Your task to perform on an android device: Do I have any events today? Image 0: 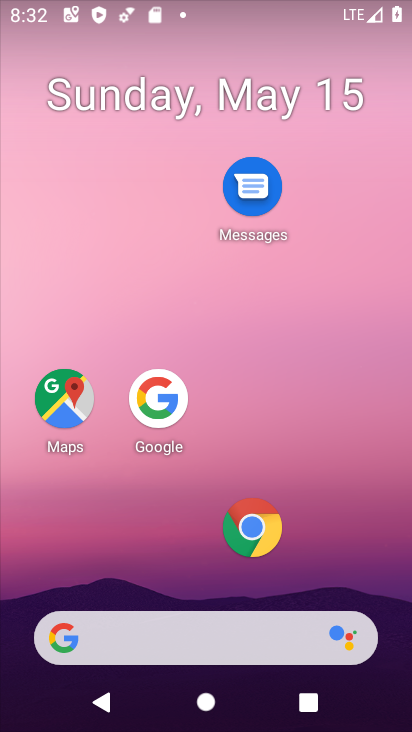
Step 0: drag from (170, 638) to (261, 289)
Your task to perform on an android device: Do I have any events today? Image 1: 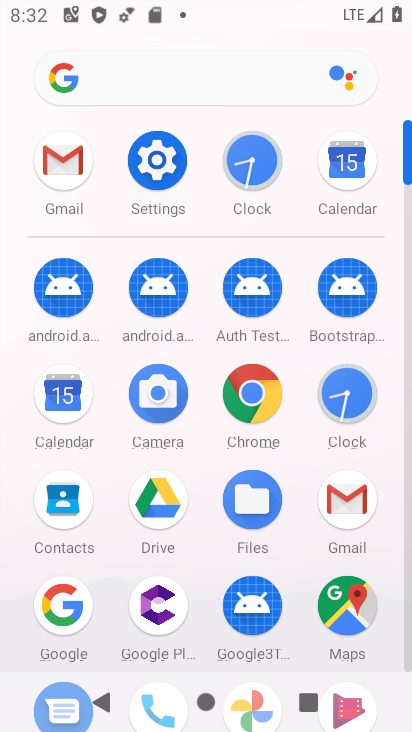
Step 1: click (64, 401)
Your task to perform on an android device: Do I have any events today? Image 2: 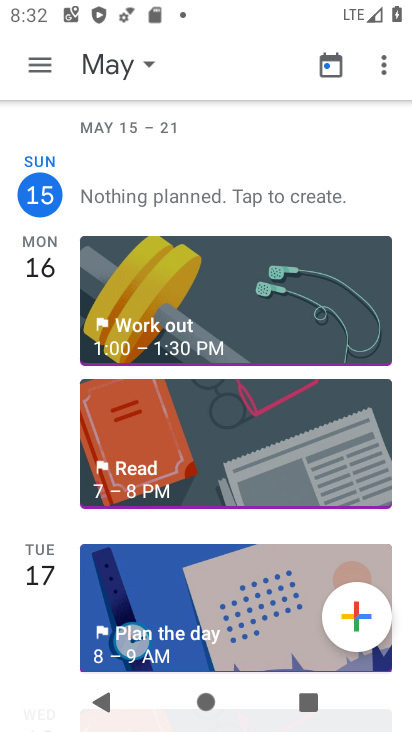
Step 2: click (87, 175)
Your task to perform on an android device: Do I have any events today? Image 3: 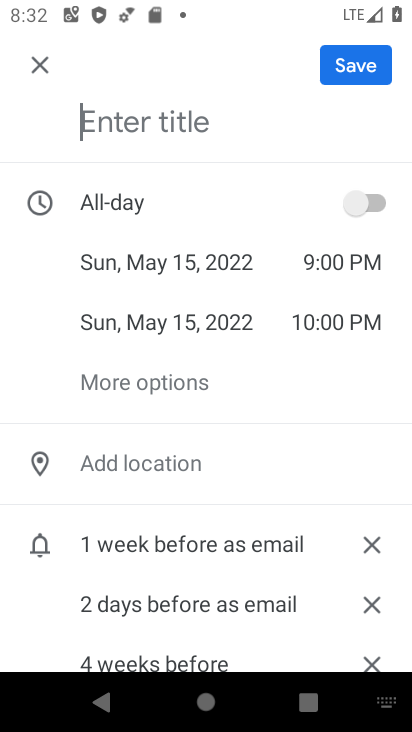
Step 3: click (49, 62)
Your task to perform on an android device: Do I have any events today? Image 4: 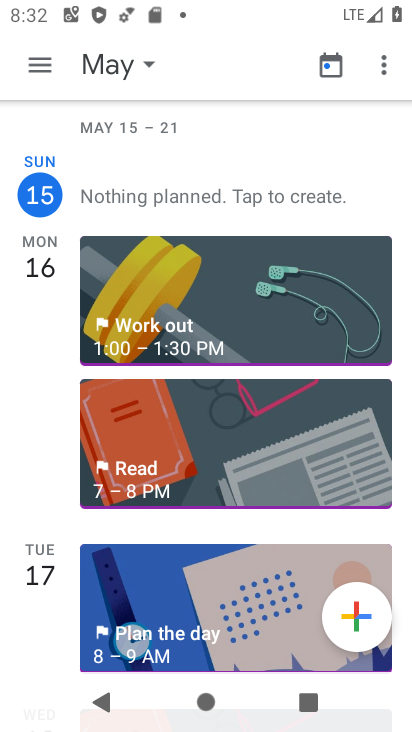
Step 4: task complete